Your task to perform on an android device: open app "VLC for Android" Image 0: 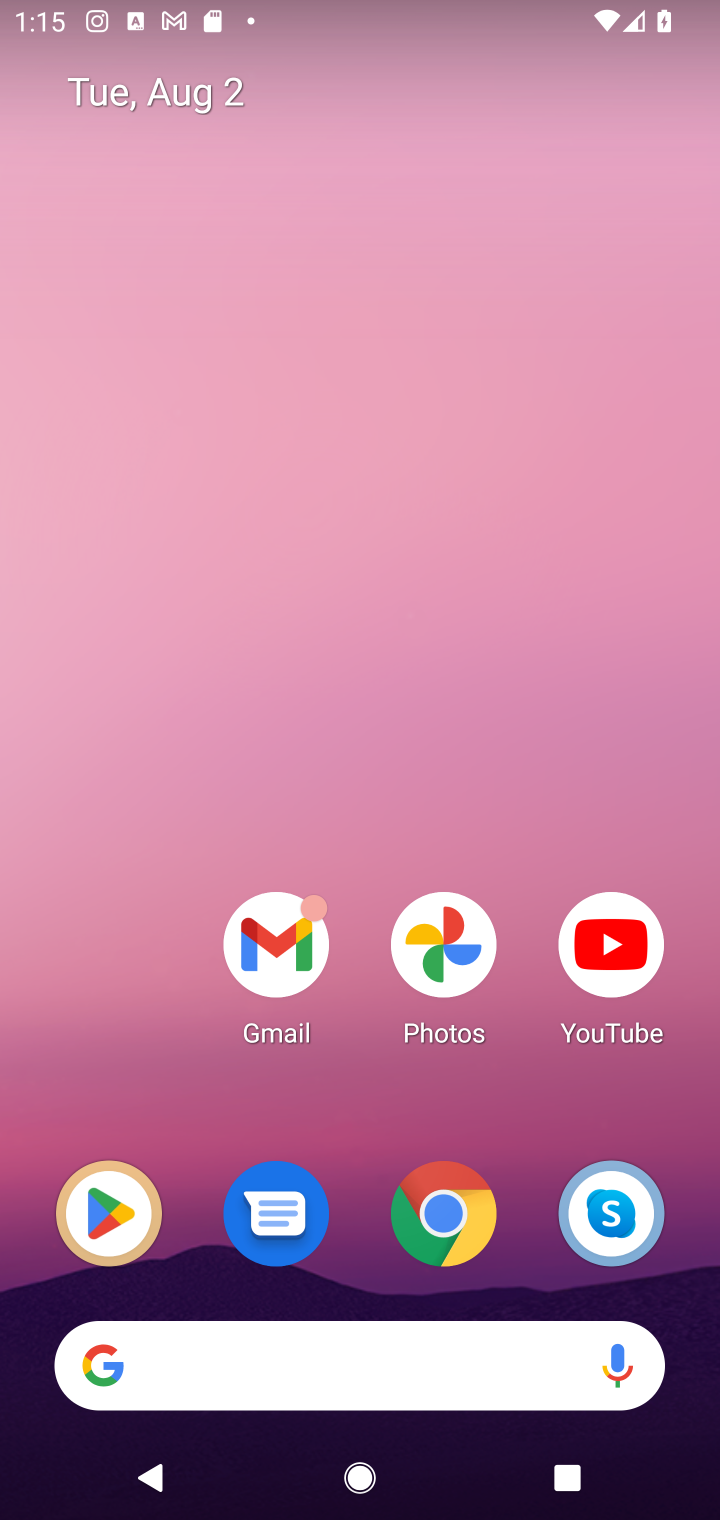
Step 0: click (106, 1207)
Your task to perform on an android device: open app "VLC for Android" Image 1: 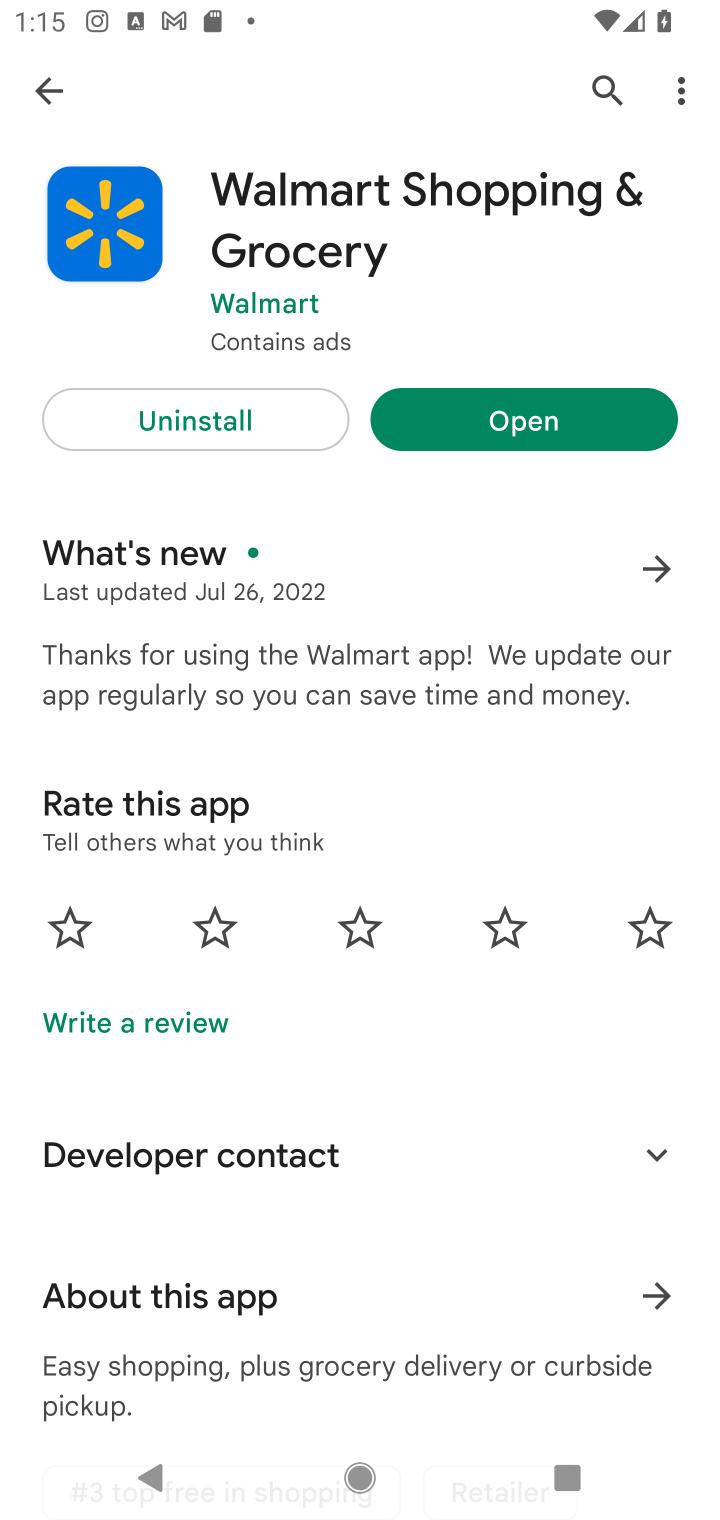
Step 1: click (46, 86)
Your task to perform on an android device: open app "VLC for Android" Image 2: 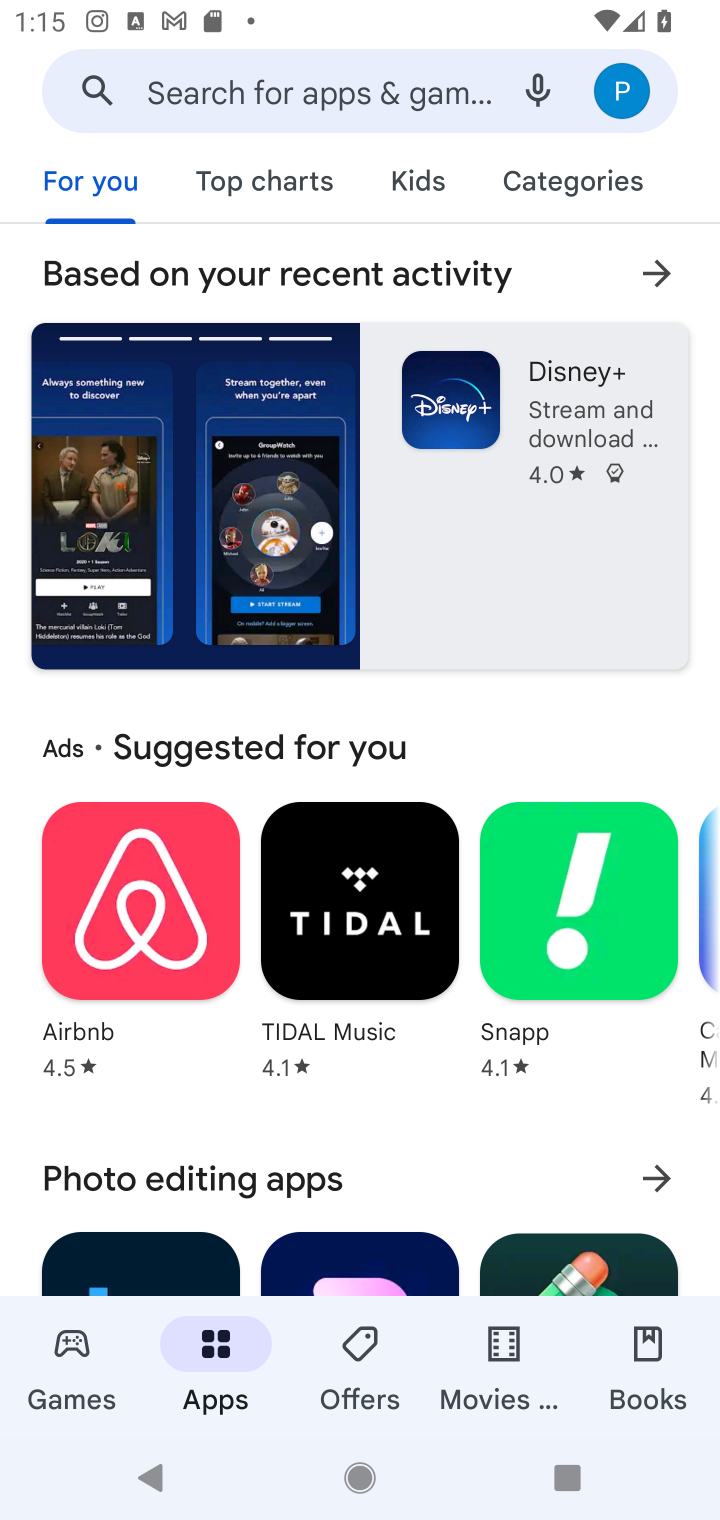
Step 2: click (320, 83)
Your task to perform on an android device: open app "VLC for Android" Image 3: 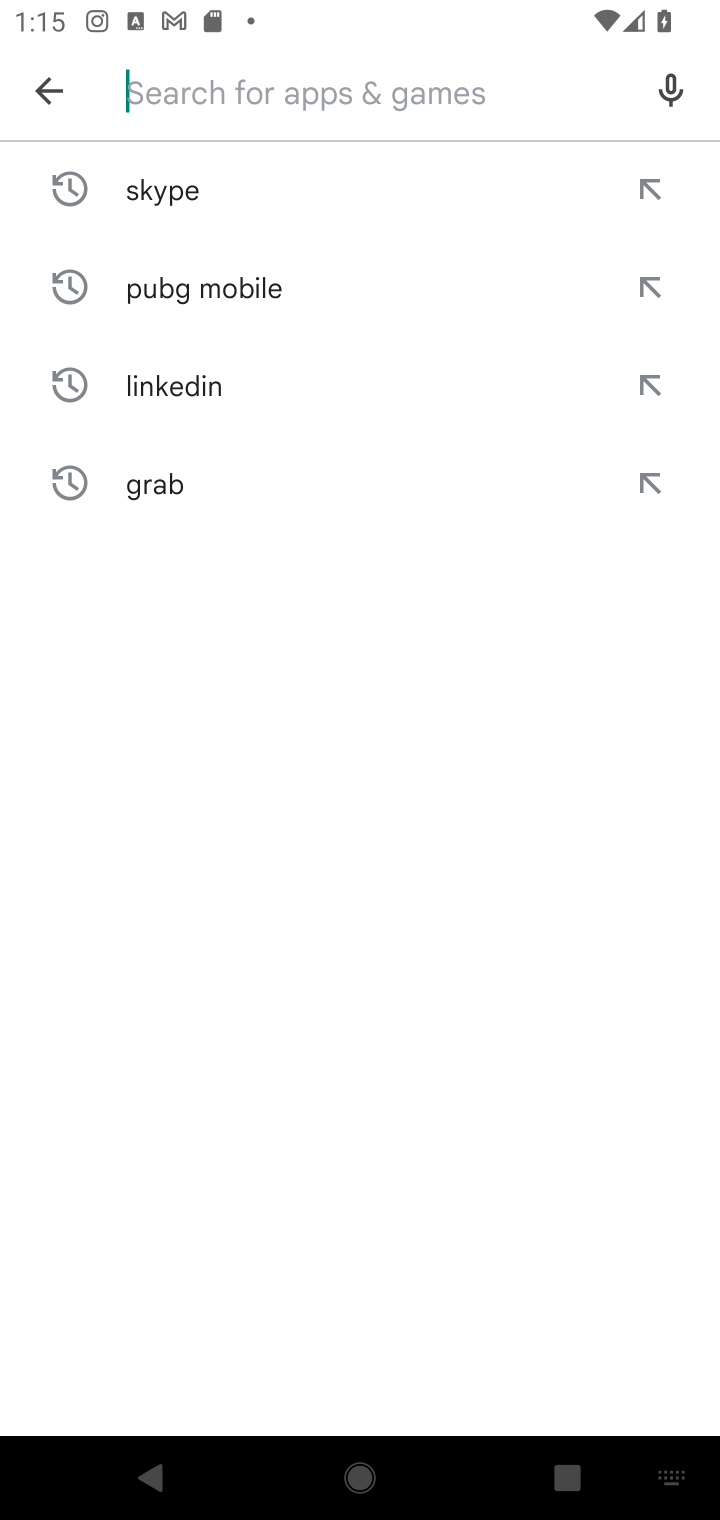
Step 3: type "VLC for Android"
Your task to perform on an android device: open app "VLC for Android" Image 4: 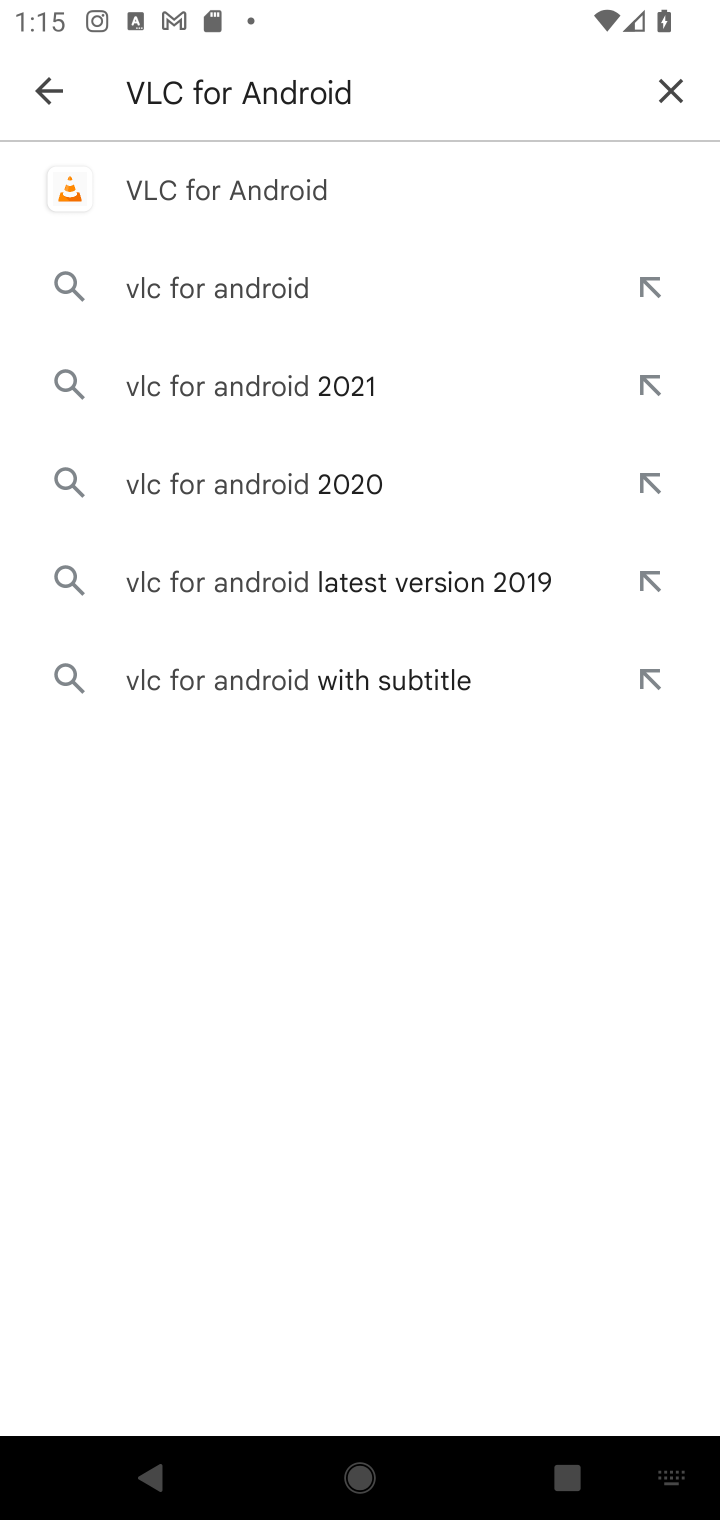
Step 4: click (232, 188)
Your task to perform on an android device: open app "VLC for Android" Image 5: 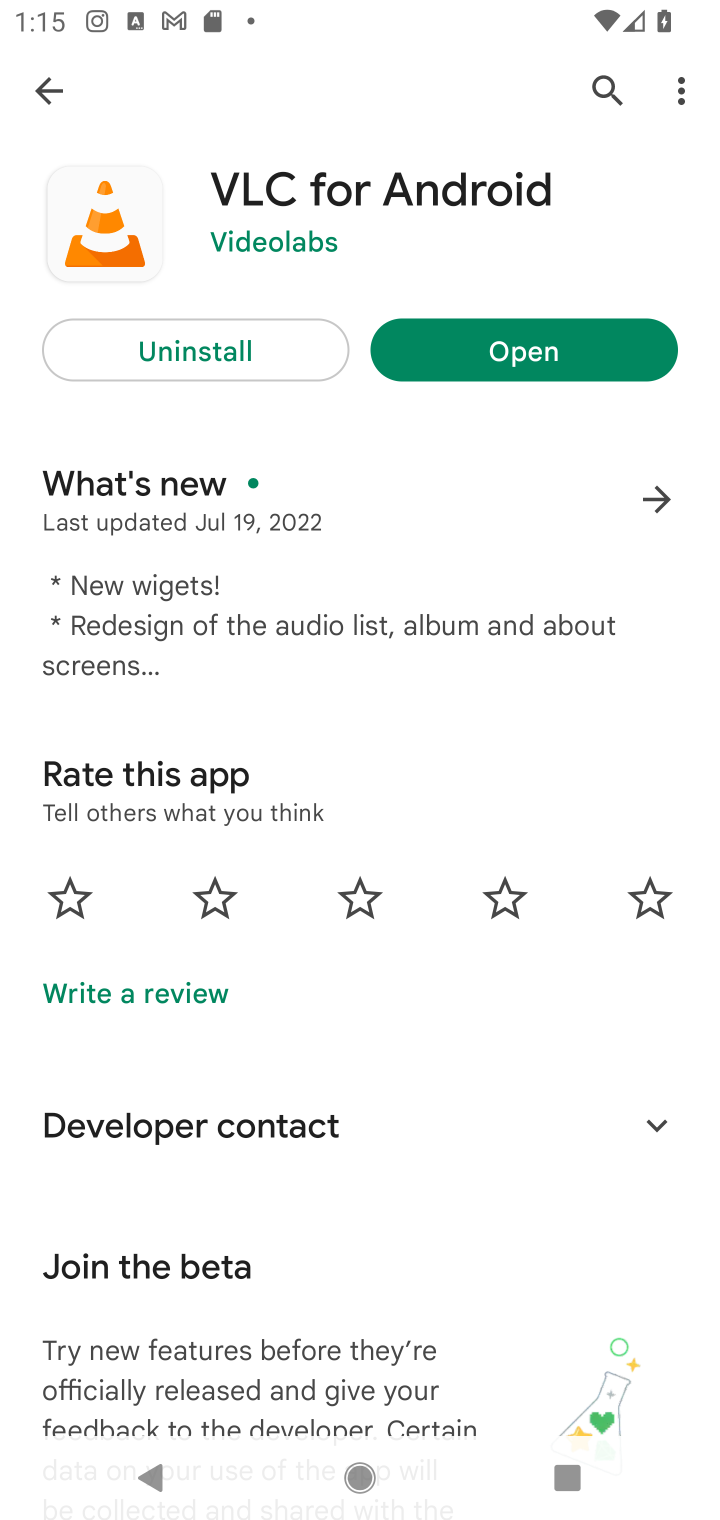
Step 5: click (520, 362)
Your task to perform on an android device: open app "VLC for Android" Image 6: 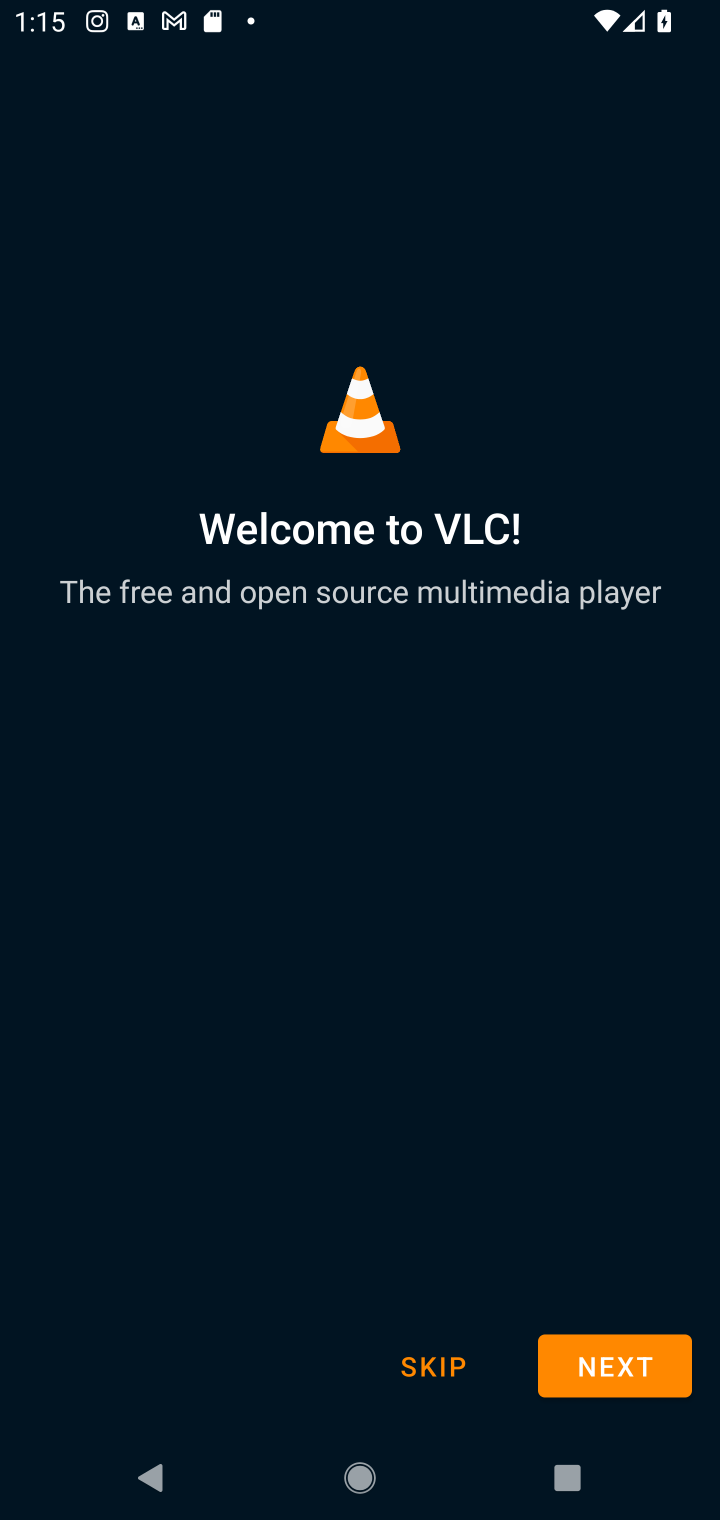
Step 6: task complete